Your task to perform on an android device: show emergency info Image 0: 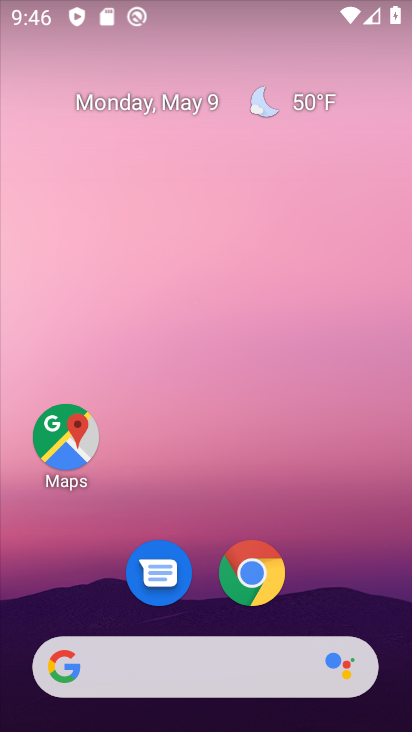
Step 0: drag from (360, 547) to (271, 48)
Your task to perform on an android device: show emergency info Image 1: 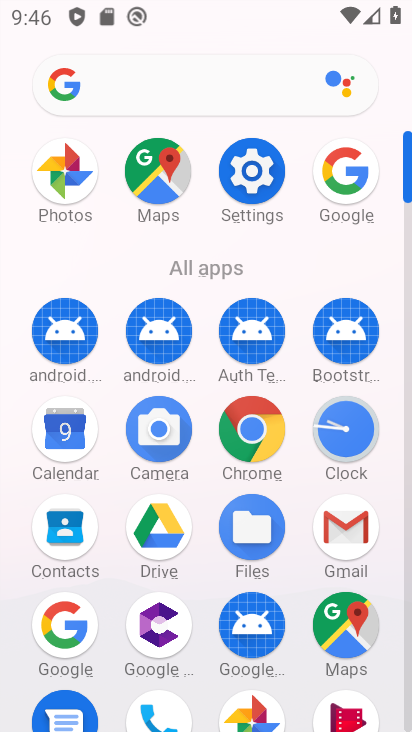
Step 1: click (259, 163)
Your task to perform on an android device: show emergency info Image 2: 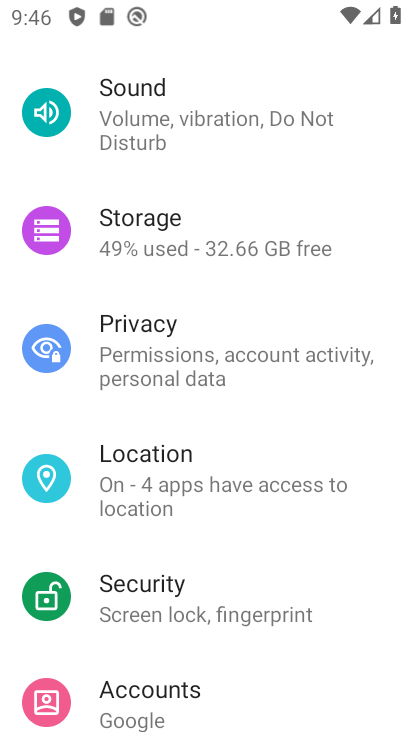
Step 2: drag from (249, 621) to (274, 1)
Your task to perform on an android device: show emergency info Image 3: 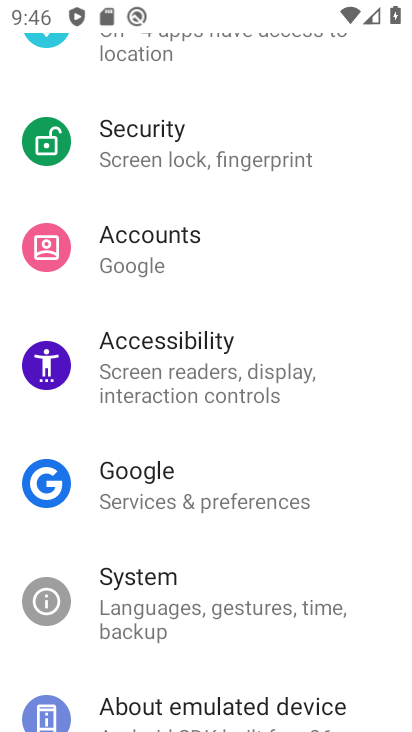
Step 3: drag from (250, 610) to (276, 198)
Your task to perform on an android device: show emergency info Image 4: 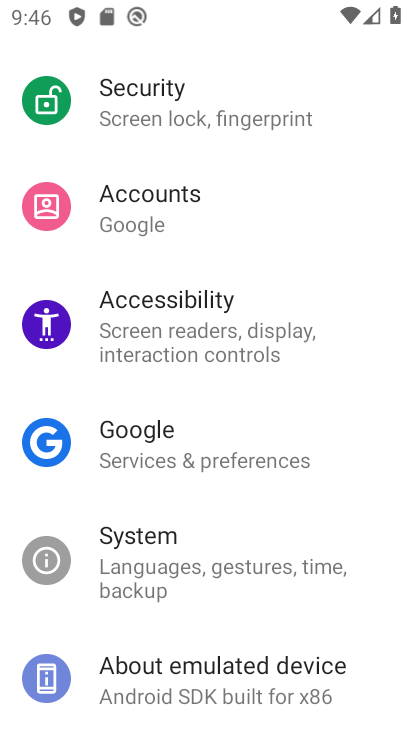
Step 4: click (186, 654)
Your task to perform on an android device: show emergency info Image 5: 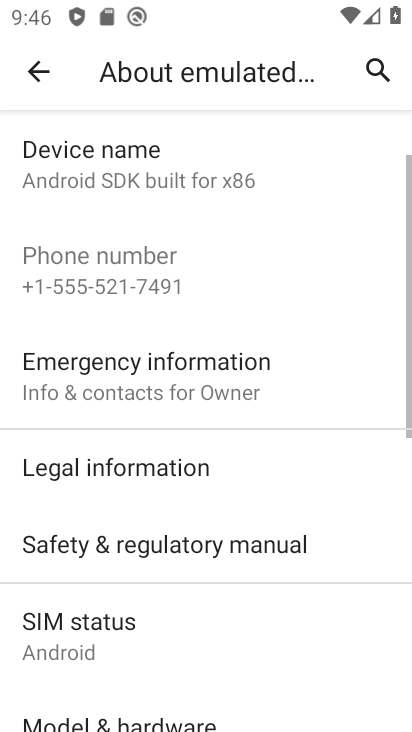
Step 5: drag from (260, 619) to (242, 448)
Your task to perform on an android device: show emergency info Image 6: 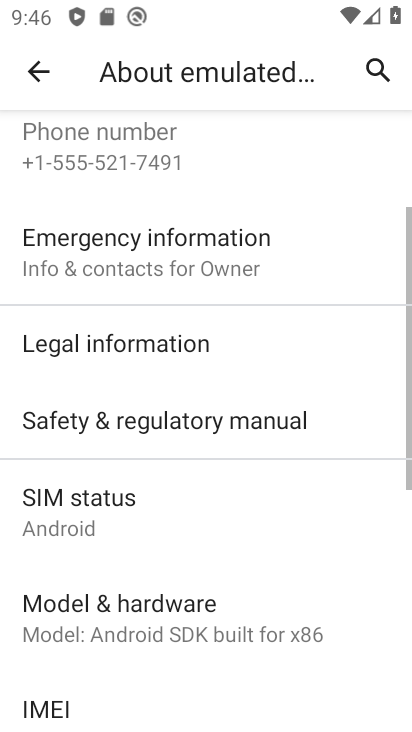
Step 6: click (209, 236)
Your task to perform on an android device: show emergency info Image 7: 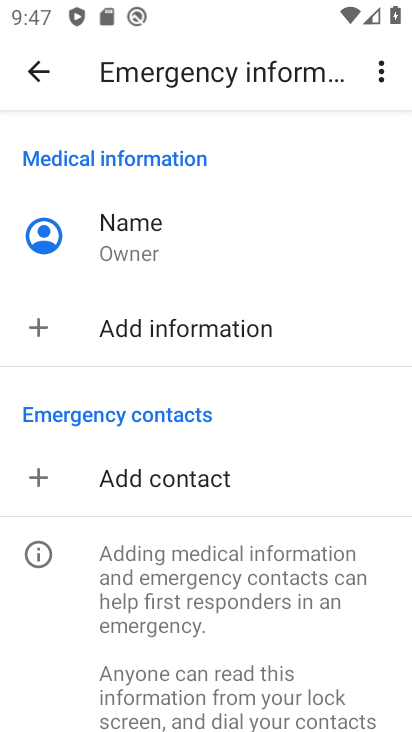
Step 7: task complete